Your task to perform on an android device: Go to Reddit.com Image 0: 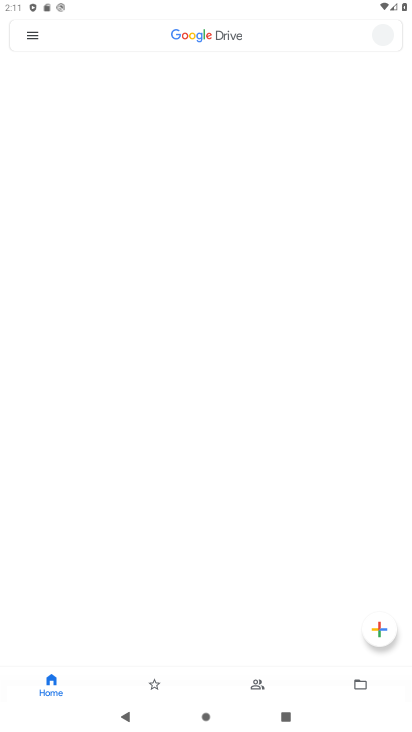
Step 0: press home button
Your task to perform on an android device: Go to Reddit.com Image 1: 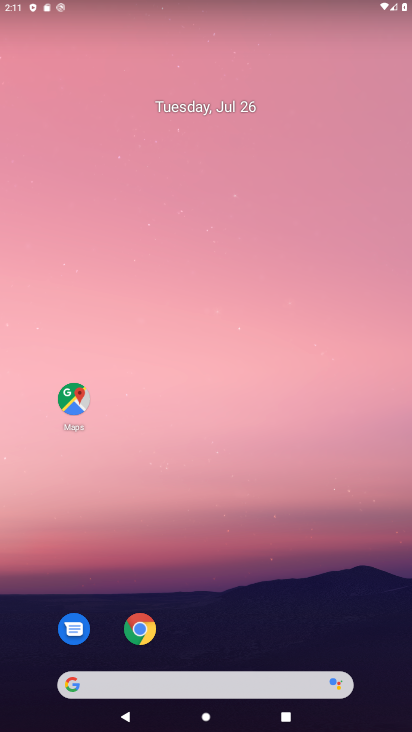
Step 1: click (134, 632)
Your task to perform on an android device: Go to Reddit.com Image 2: 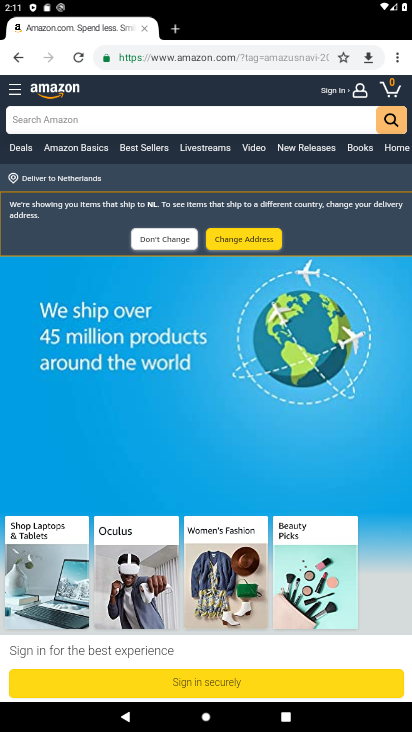
Step 2: click (194, 59)
Your task to perform on an android device: Go to Reddit.com Image 3: 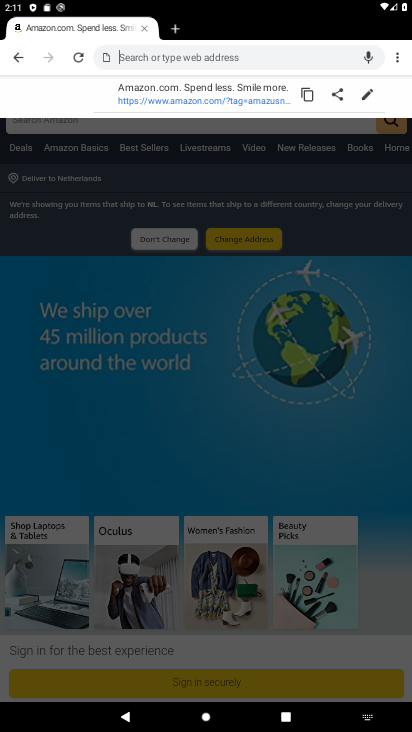
Step 3: type "Reddit.com"
Your task to perform on an android device: Go to Reddit.com Image 4: 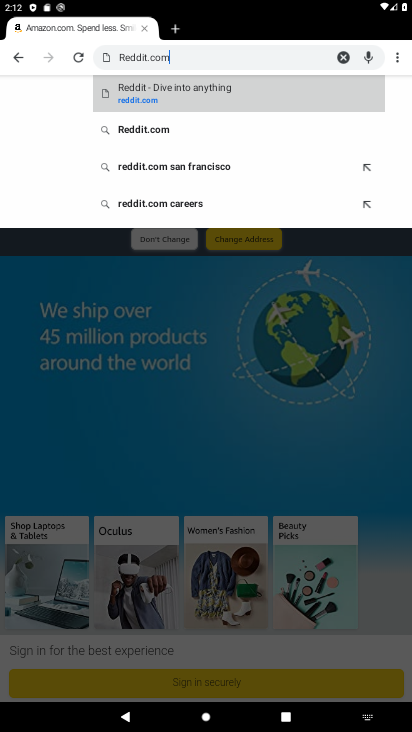
Step 4: click (241, 96)
Your task to perform on an android device: Go to Reddit.com Image 5: 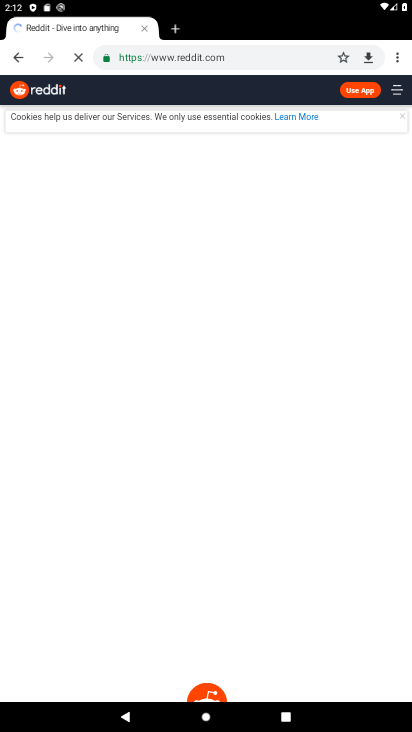
Step 5: task complete